Your task to perform on an android device: Open network settings Image 0: 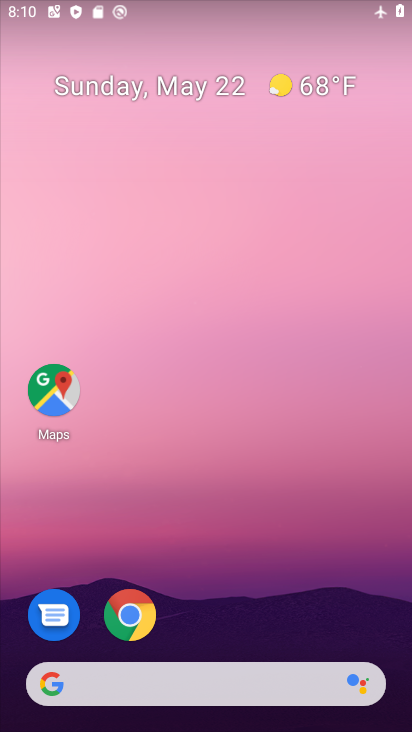
Step 0: drag from (198, 639) to (147, 24)
Your task to perform on an android device: Open network settings Image 1: 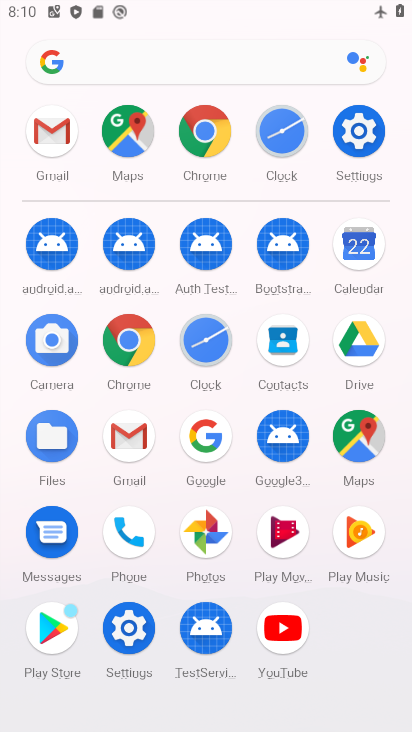
Step 1: click (357, 139)
Your task to perform on an android device: Open network settings Image 2: 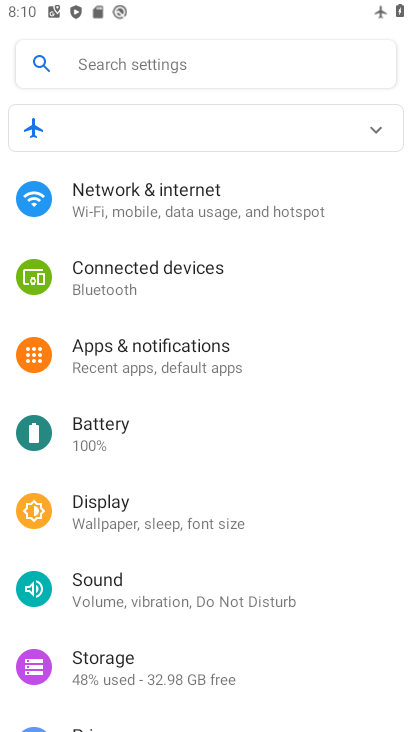
Step 2: click (131, 203)
Your task to perform on an android device: Open network settings Image 3: 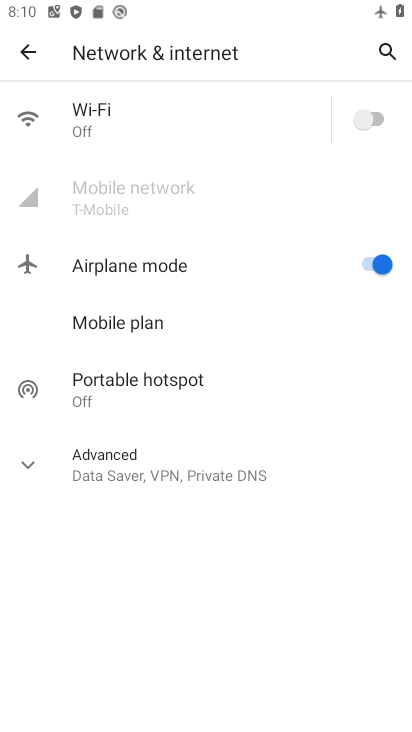
Step 3: click (131, 203)
Your task to perform on an android device: Open network settings Image 4: 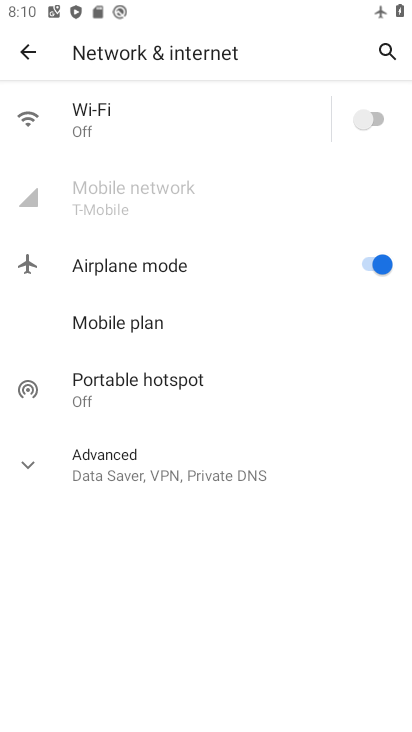
Step 4: task complete